Your task to perform on an android device: Go to battery settings Image 0: 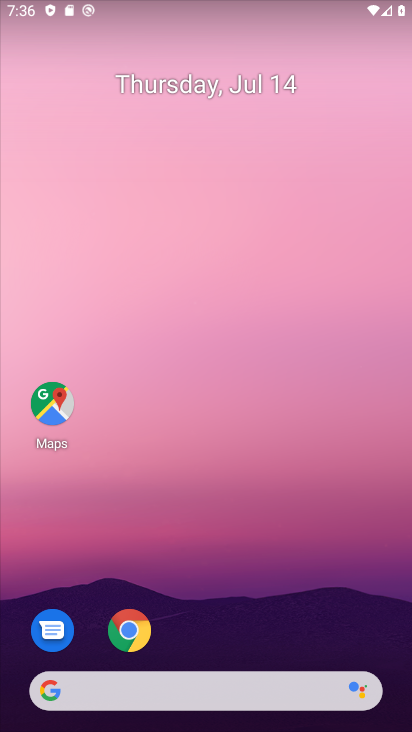
Step 0: drag from (243, 612) to (150, 370)
Your task to perform on an android device: Go to battery settings Image 1: 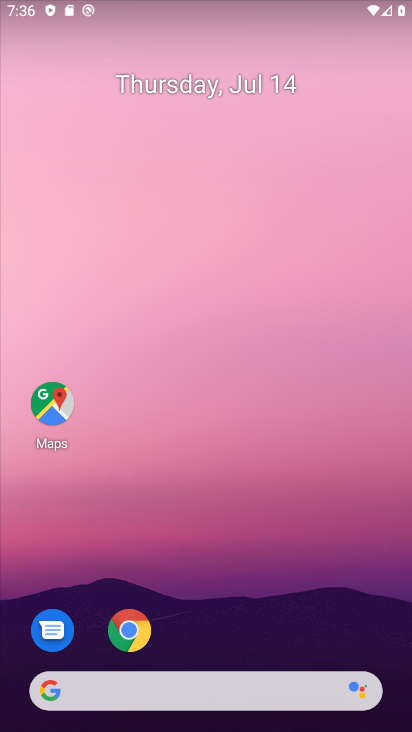
Step 1: drag from (198, 623) to (290, 160)
Your task to perform on an android device: Go to battery settings Image 2: 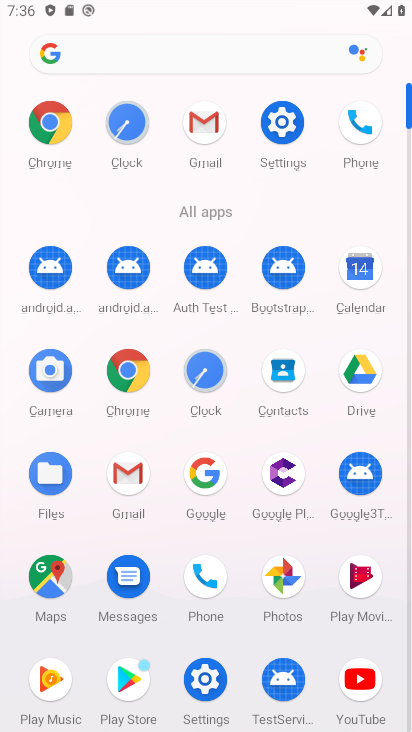
Step 2: click (285, 117)
Your task to perform on an android device: Go to battery settings Image 3: 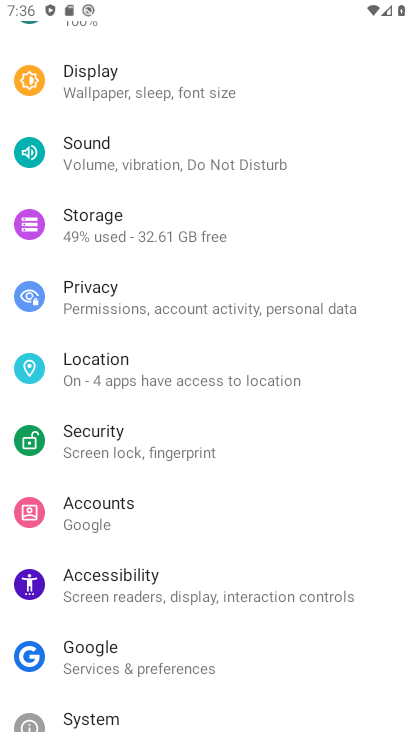
Step 3: drag from (180, 176) to (198, 341)
Your task to perform on an android device: Go to battery settings Image 4: 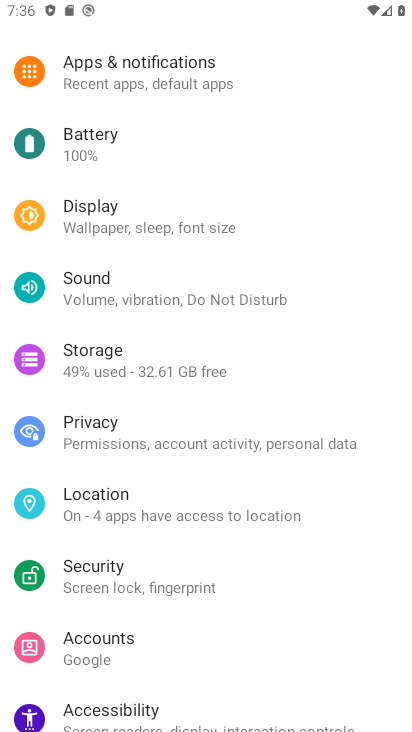
Step 4: click (103, 152)
Your task to perform on an android device: Go to battery settings Image 5: 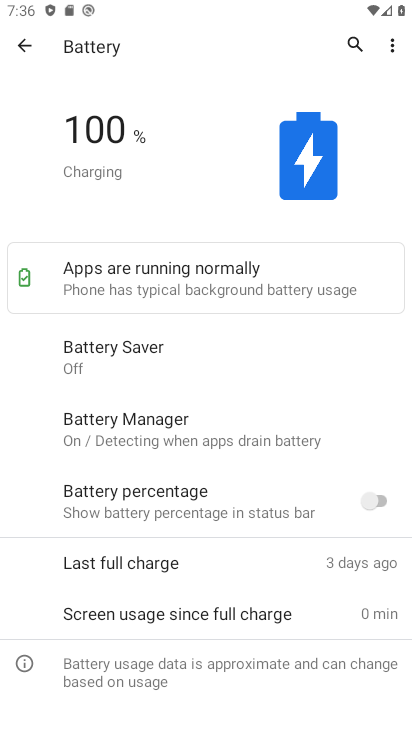
Step 5: task complete